Your task to perform on an android device: remove spam from my inbox in the gmail app Image 0: 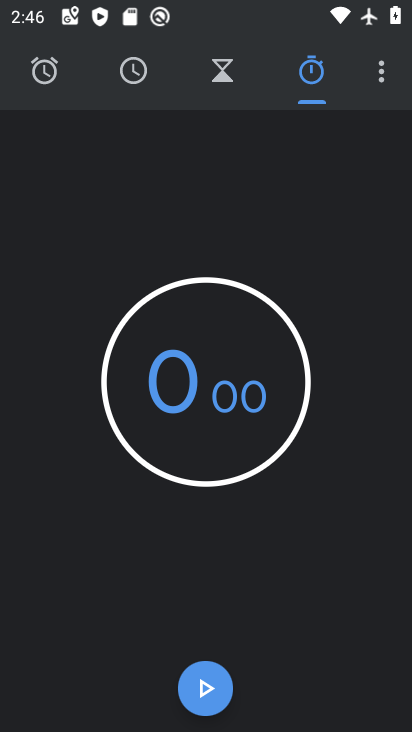
Step 0: press home button
Your task to perform on an android device: remove spam from my inbox in the gmail app Image 1: 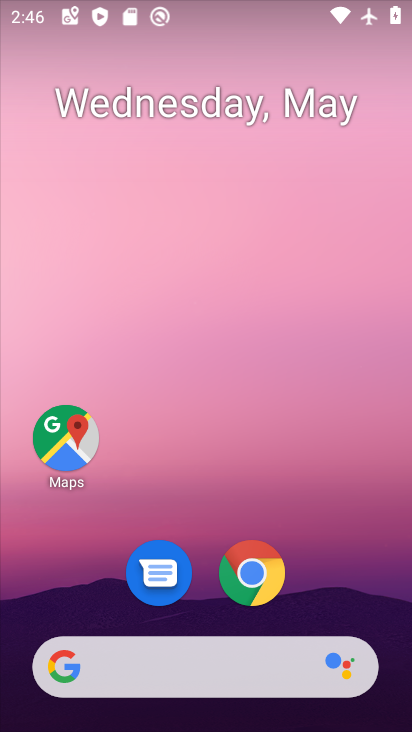
Step 1: drag from (313, 600) to (329, 49)
Your task to perform on an android device: remove spam from my inbox in the gmail app Image 2: 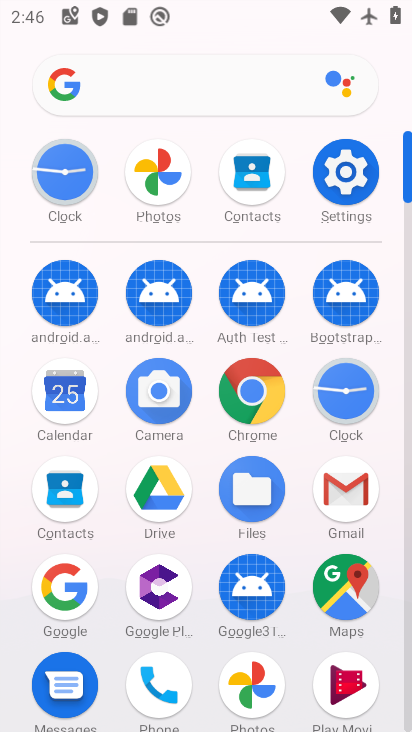
Step 2: click (335, 478)
Your task to perform on an android device: remove spam from my inbox in the gmail app Image 3: 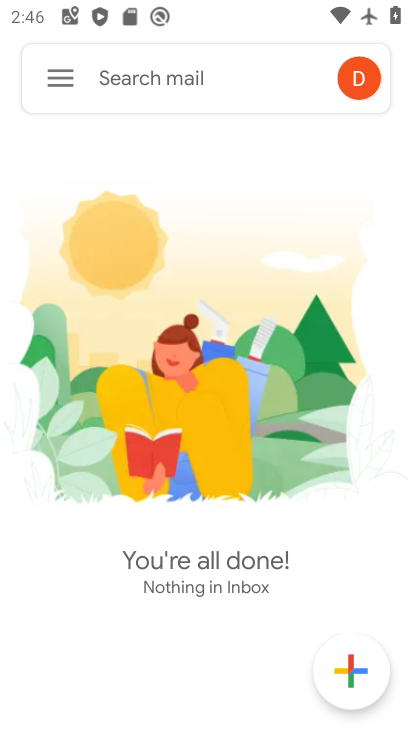
Step 3: click (64, 74)
Your task to perform on an android device: remove spam from my inbox in the gmail app Image 4: 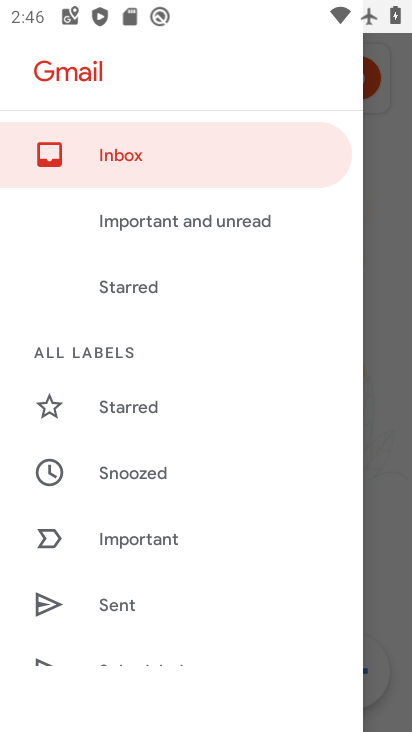
Step 4: drag from (191, 620) to (271, 304)
Your task to perform on an android device: remove spam from my inbox in the gmail app Image 5: 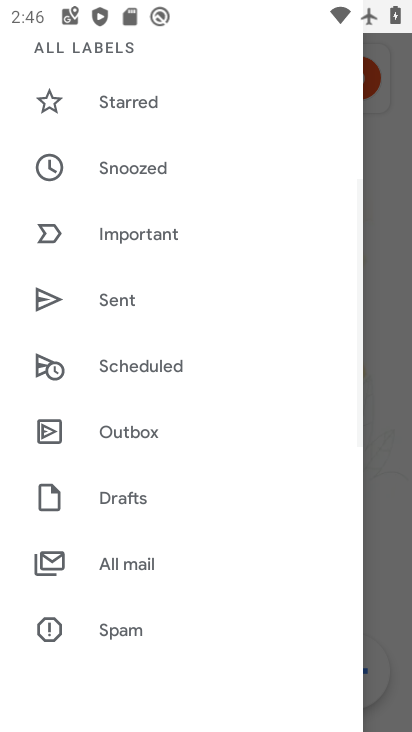
Step 5: click (137, 626)
Your task to perform on an android device: remove spam from my inbox in the gmail app Image 6: 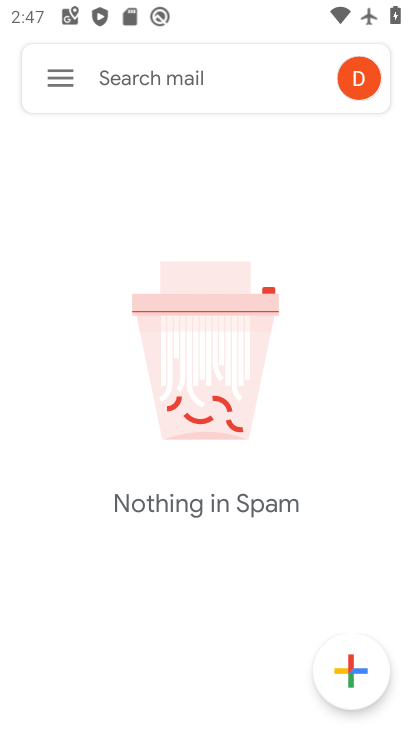
Step 6: task complete